Your task to perform on an android device: Open Chrome and go to the settings page Image 0: 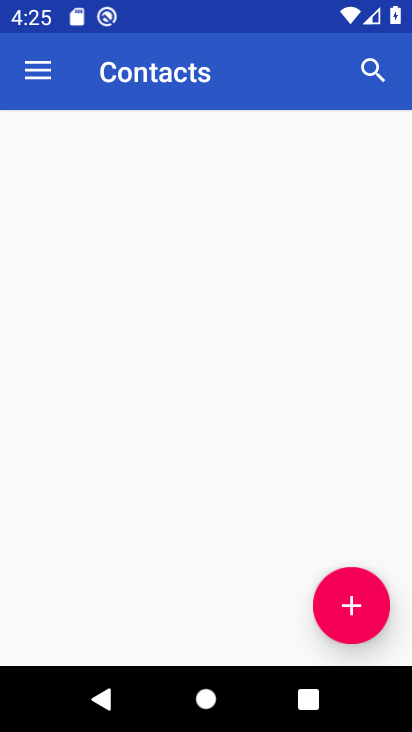
Step 0: press back button
Your task to perform on an android device: Open Chrome and go to the settings page Image 1: 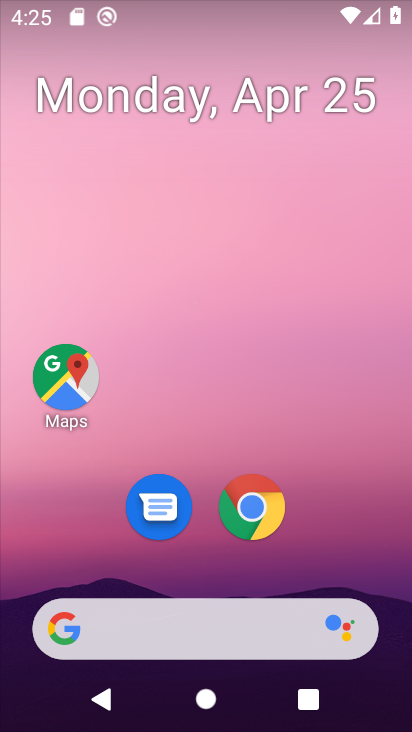
Step 1: drag from (172, 463) to (303, 52)
Your task to perform on an android device: Open Chrome and go to the settings page Image 2: 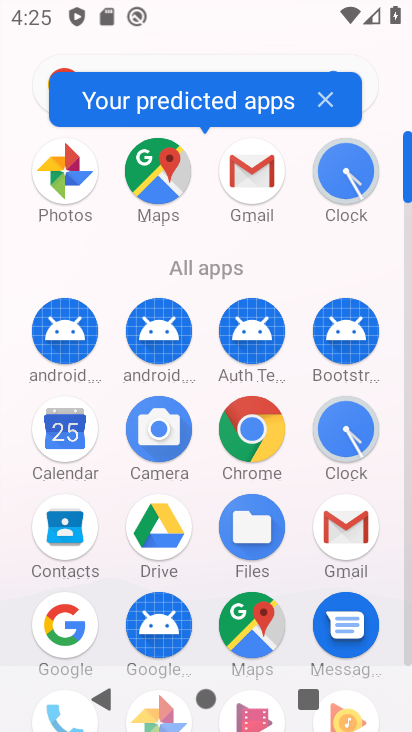
Step 2: click (246, 444)
Your task to perform on an android device: Open Chrome and go to the settings page Image 3: 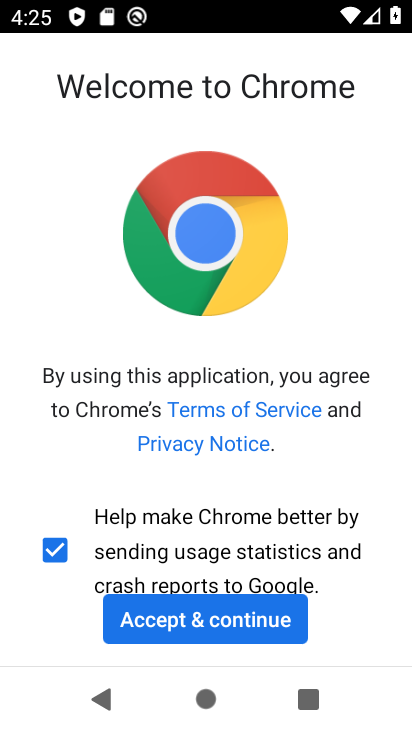
Step 3: click (289, 628)
Your task to perform on an android device: Open Chrome and go to the settings page Image 4: 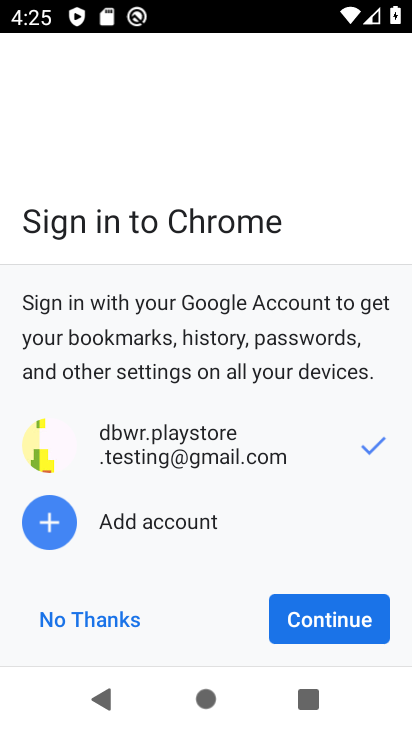
Step 4: click (324, 622)
Your task to perform on an android device: Open Chrome and go to the settings page Image 5: 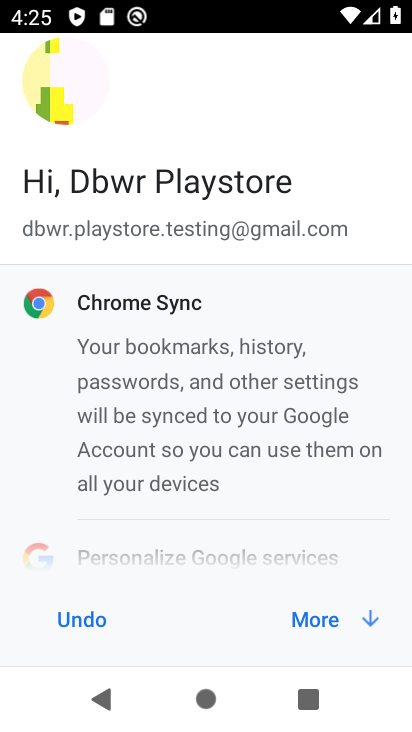
Step 5: click (324, 622)
Your task to perform on an android device: Open Chrome and go to the settings page Image 6: 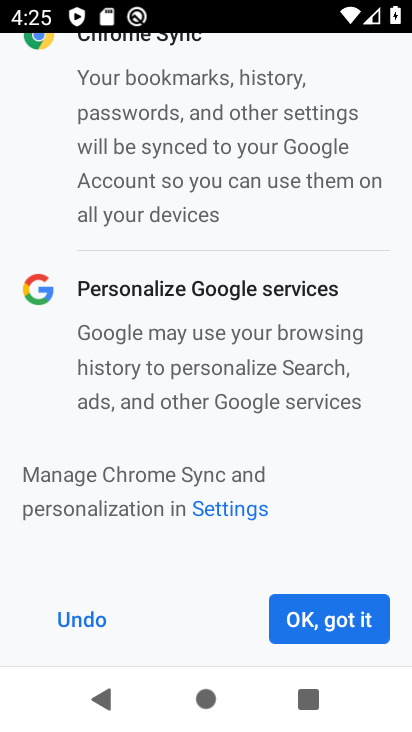
Step 6: click (324, 622)
Your task to perform on an android device: Open Chrome and go to the settings page Image 7: 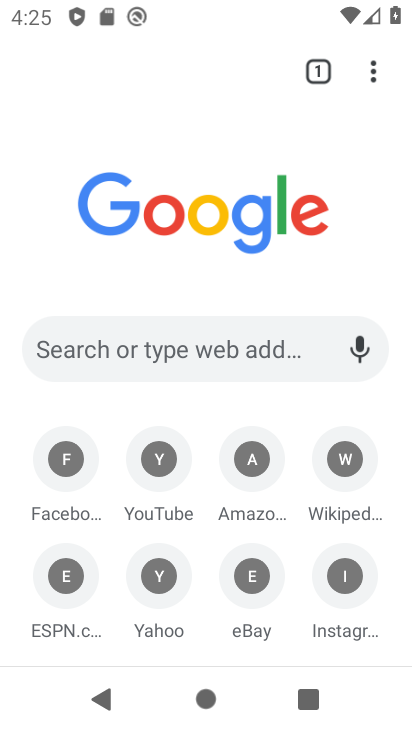
Step 7: click (385, 74)
Your task to perform on an android device: Open Chrome and go to the settings page Image 8: 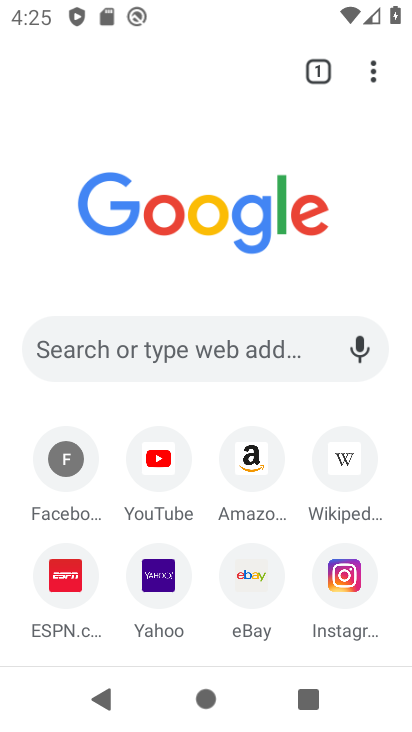
Step 8: task complete